Your task to perform on an android device: Open Wikipedia Image 0: 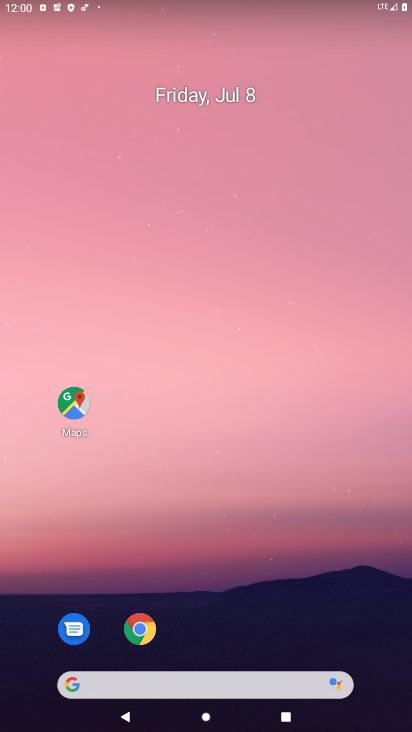
Step 0: click (138, 625)
Your task to perform on an android device: Open Wikipedia Image 1: 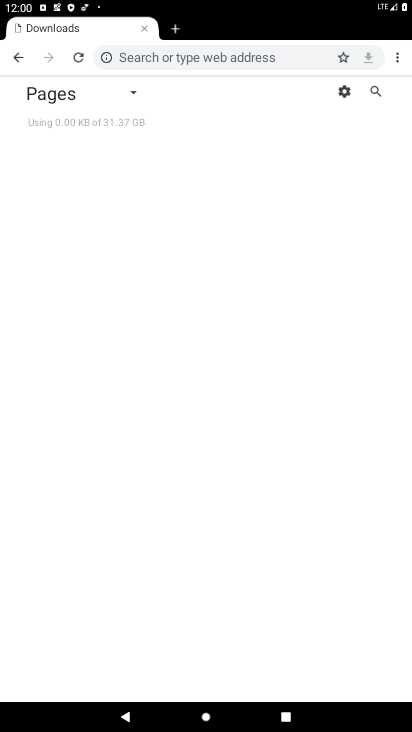
Step 1: click (129, 50)
Your task to perform on an android device: Open Wikipedia Image 2: 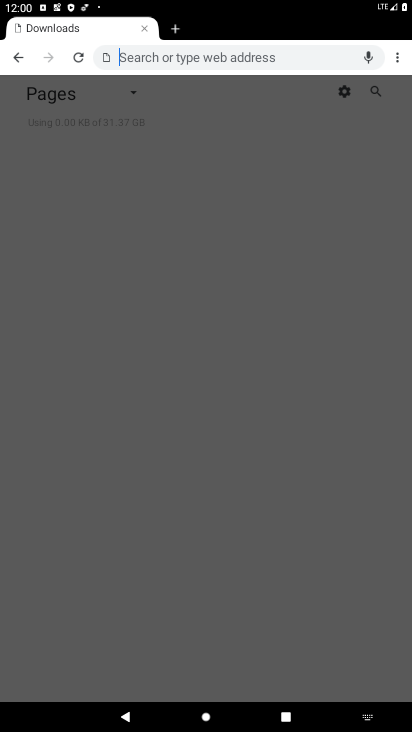
Step 2: type "wikipedia"
Your task to perform on an android device: Open Wikipedia Image 3: 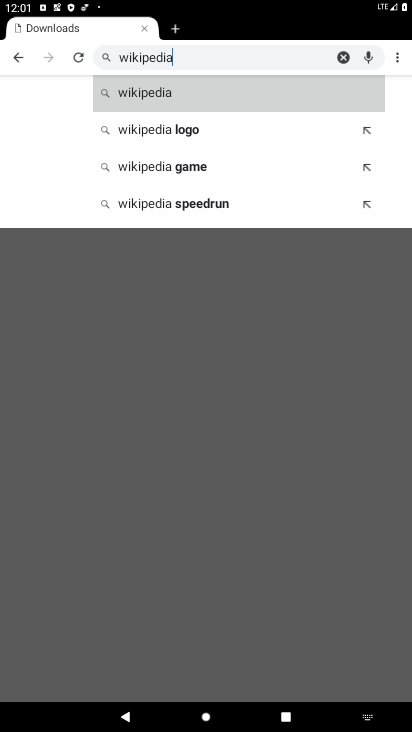
Step 3: click (137, 97)
Your task to perform on an android device: Open Wikipedia Image 4: 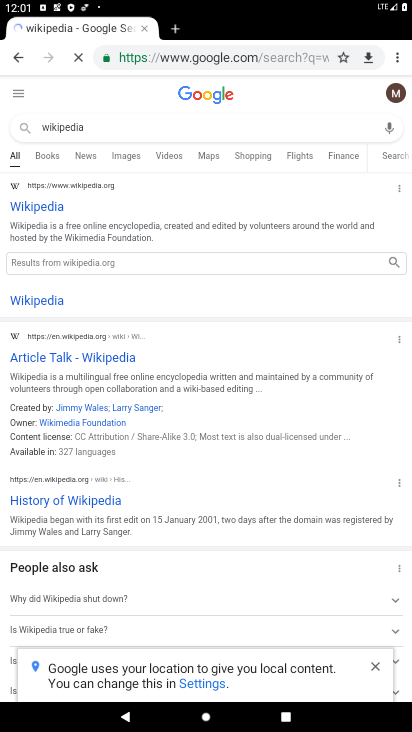
Step 4: click (34, 207)
Your task to perform on an android device: Open Wikipedia Image 5: 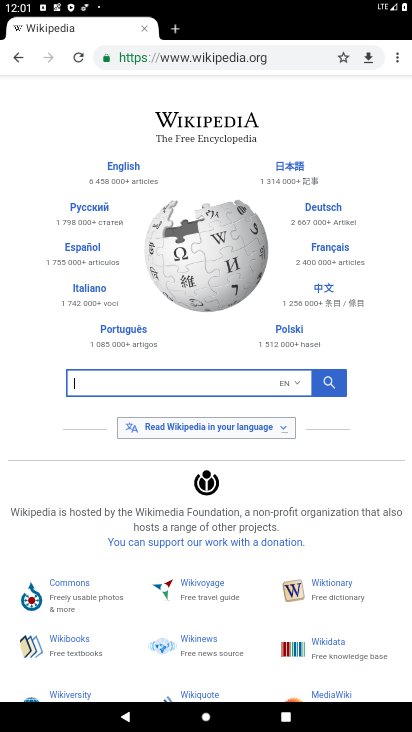
Step 5: task complete